Your task to perform on an android device: all mails in gmail Image 0: 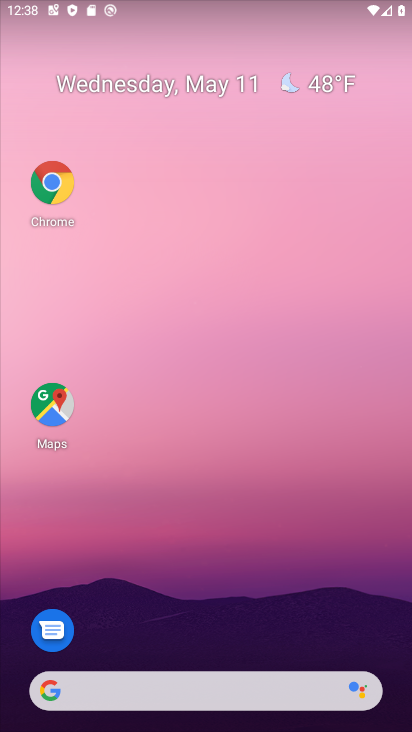
Step 0: drag from (193, 669) to (204, 1)
Your task to perform on an android device: all mails in gmail Image 1: 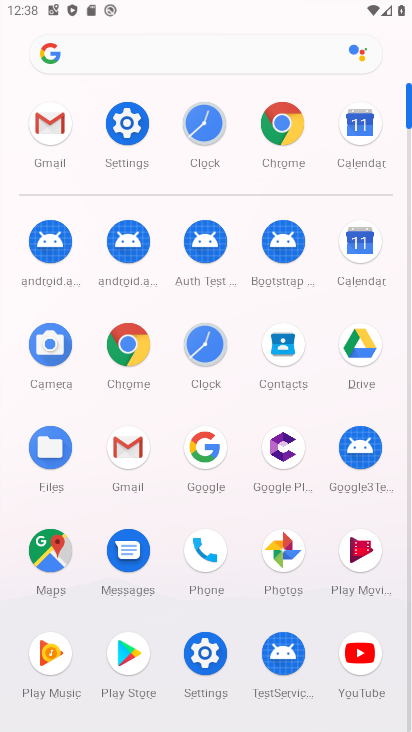
Step 1: click (139, 444)
Your task to perform on an android device: all mails in gmail Image 2: 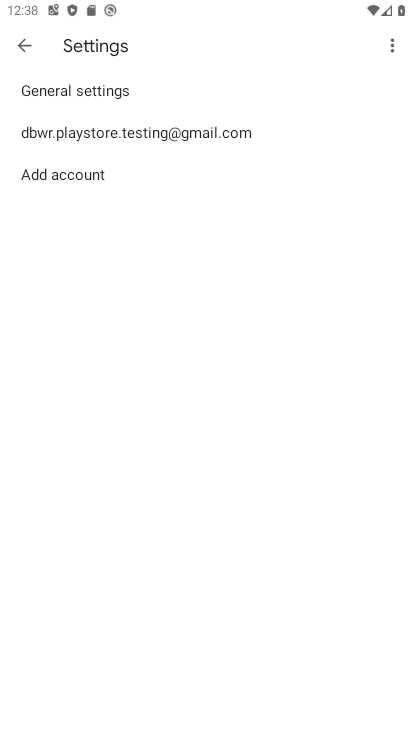
Step 2: click (29, 43)
Your task to perform on an android device: all mails in gmail Image 3: 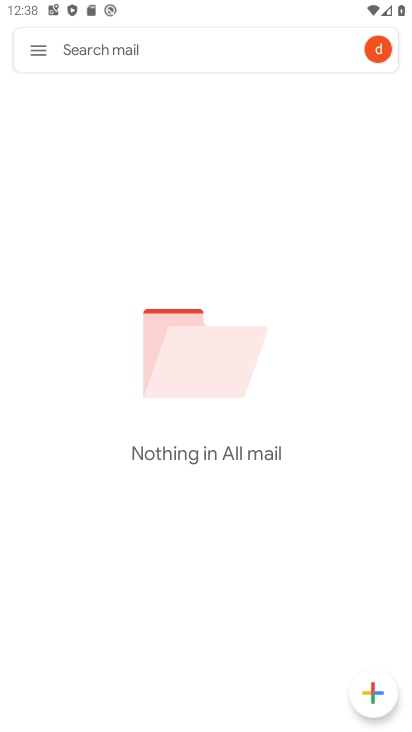
Step 3: task complete